Your task to perform on an android device: What's a good restaurant in Sacramento? Image 0: 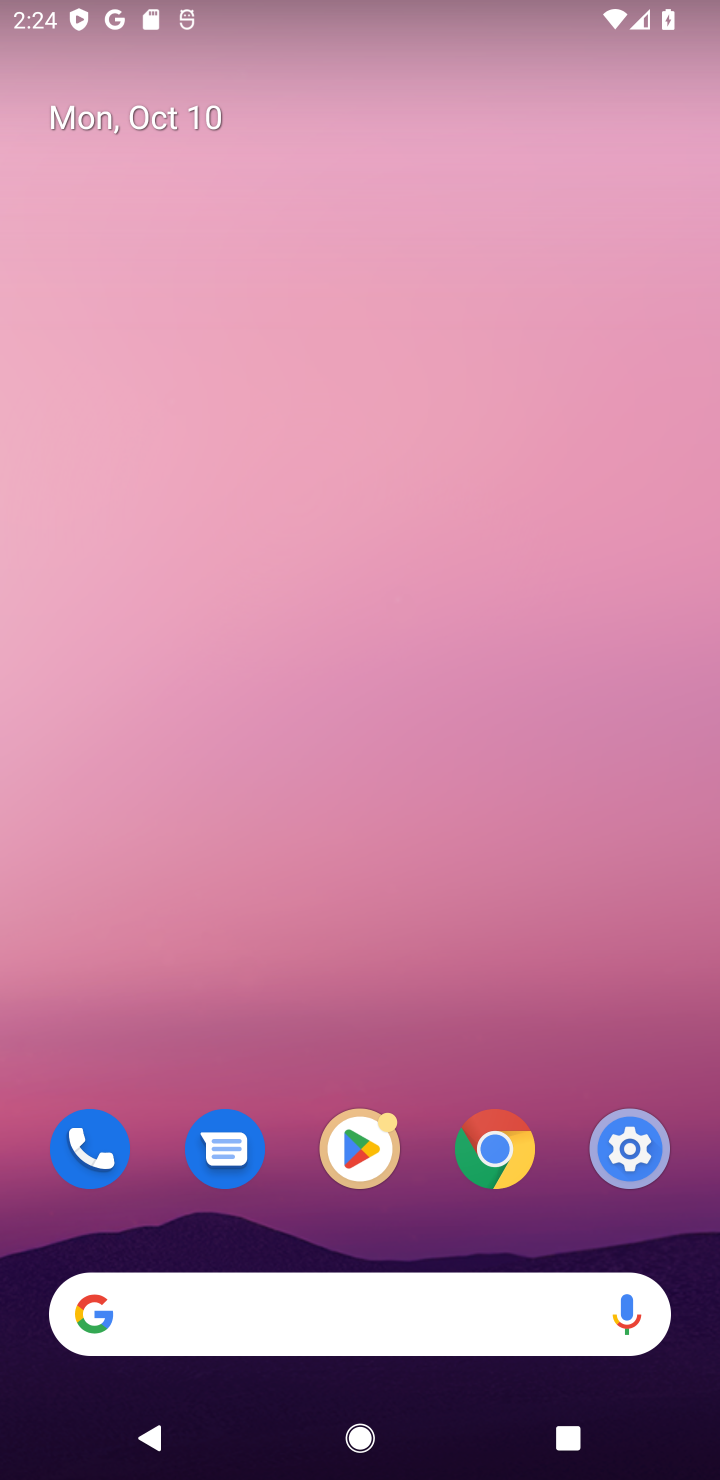
Step 0: click (587, 818)
Your task to perform on an android device: What's a good restaurant in Sacramento? Image 1: 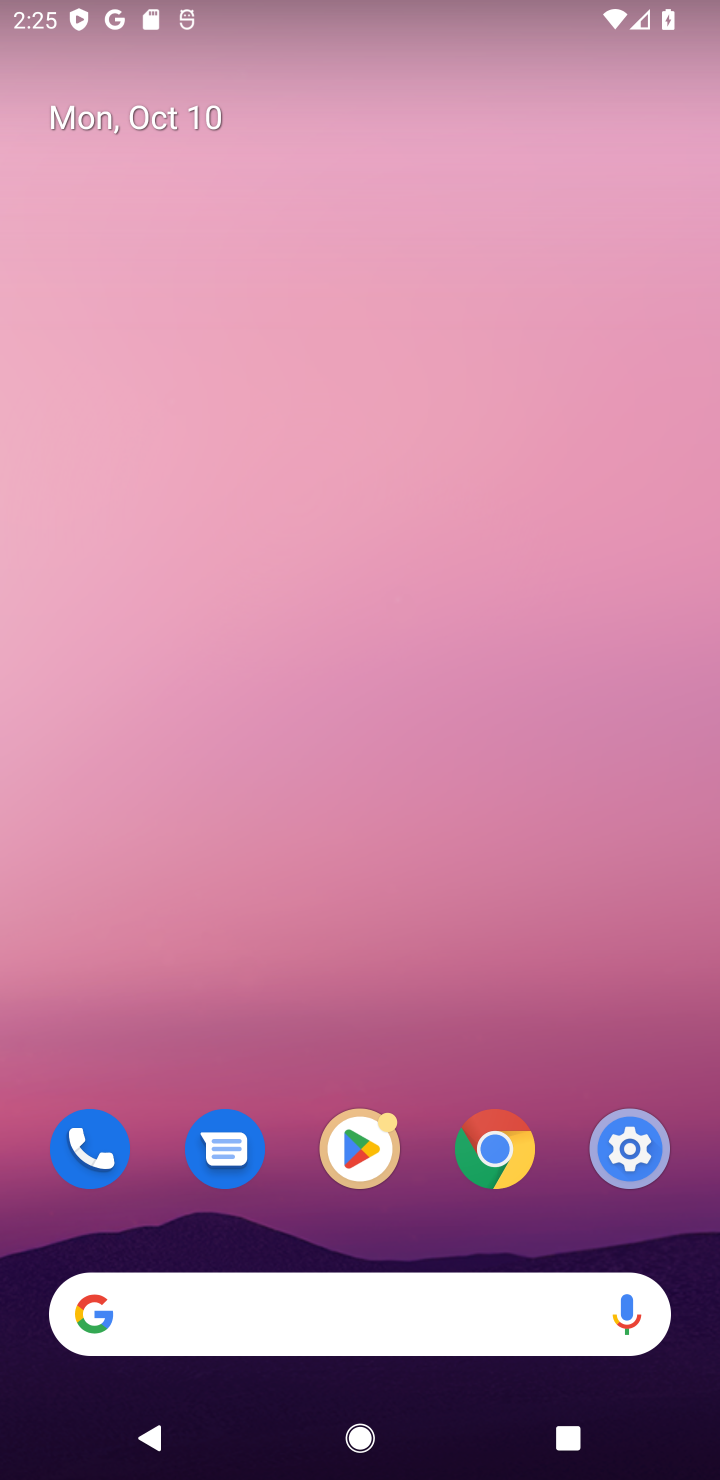
Step 1: click (211, 1311)
Your task to perform on an android device: What's a good restaurant in Sacramento? Image 2: 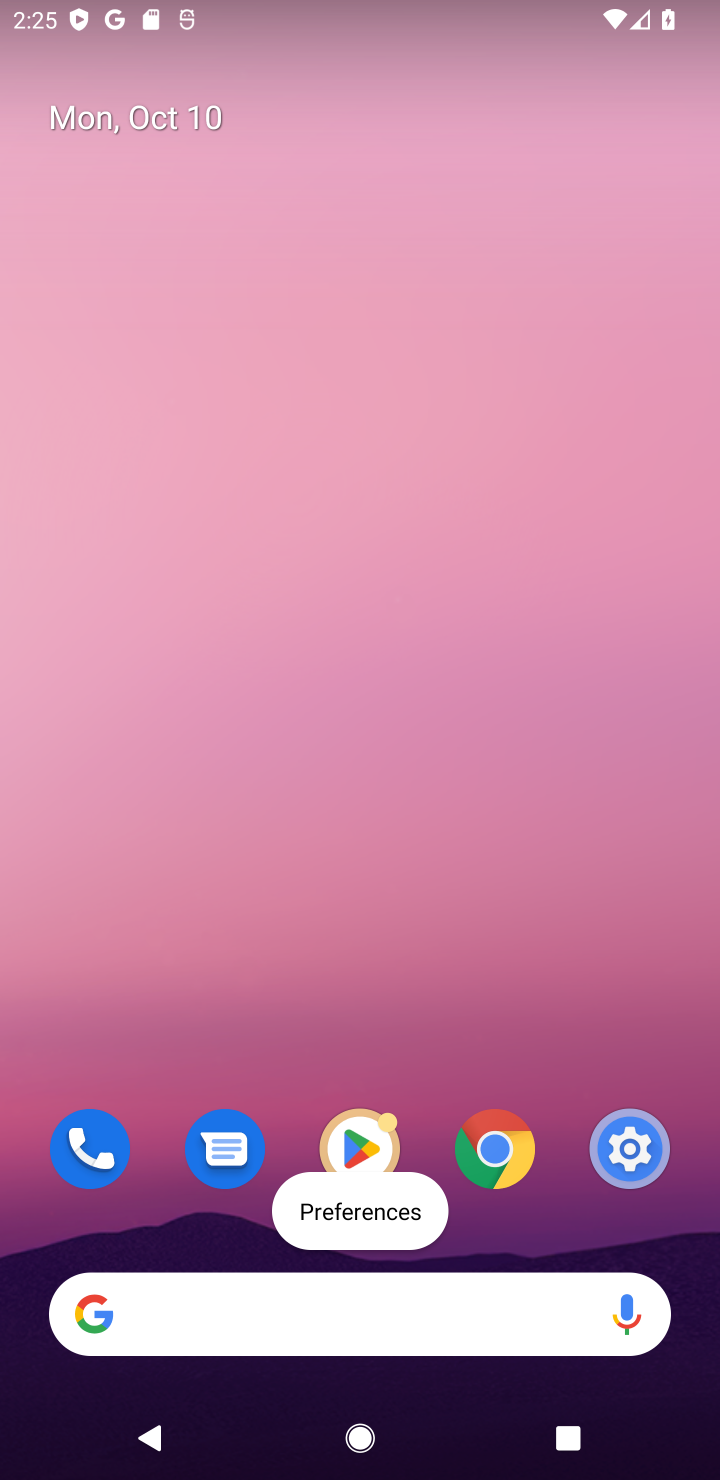
Step 2: click (324, 1321)
Your task to perform on an android device: What's a good restaurant in Sacramento? Image 3: 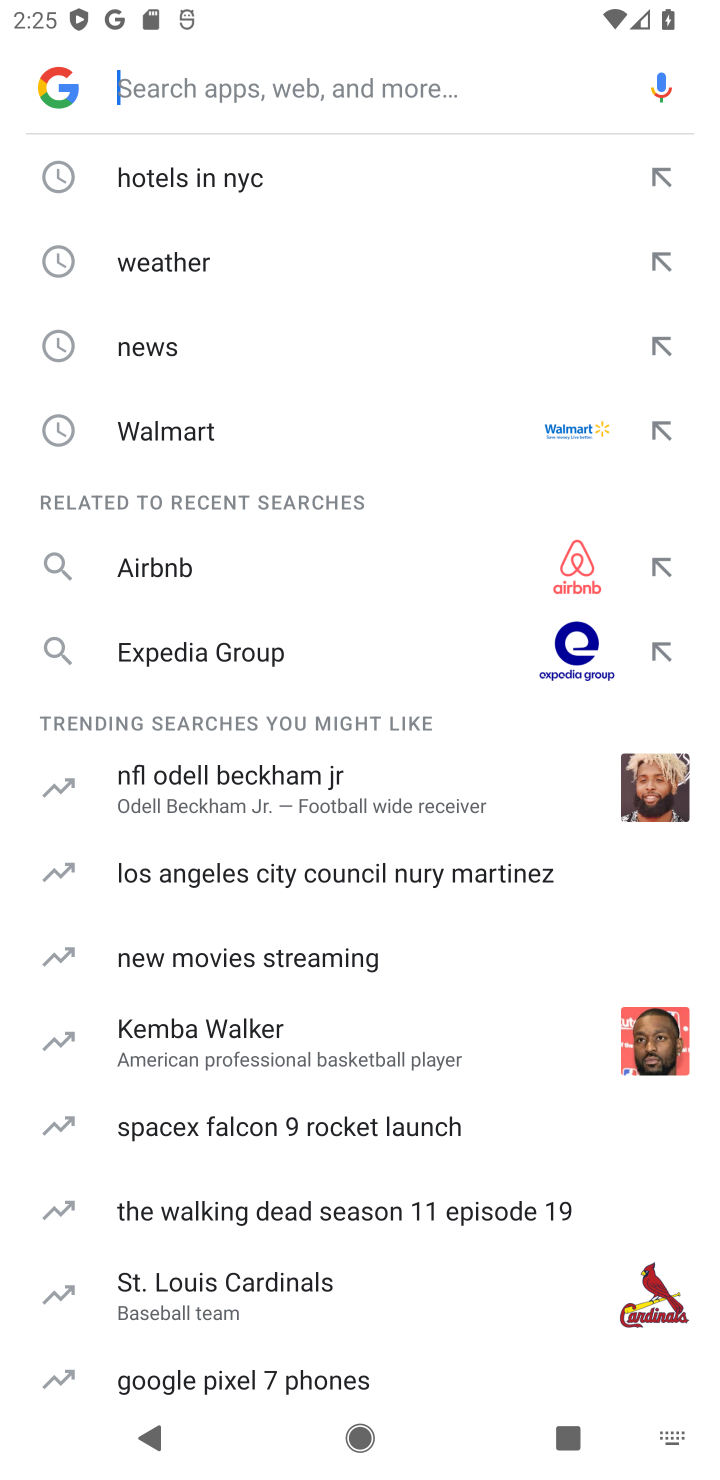
Step 3: click (324, 1321)
Your task to perform on an android device: What's a good restaurant in Sacramento? Image 4: 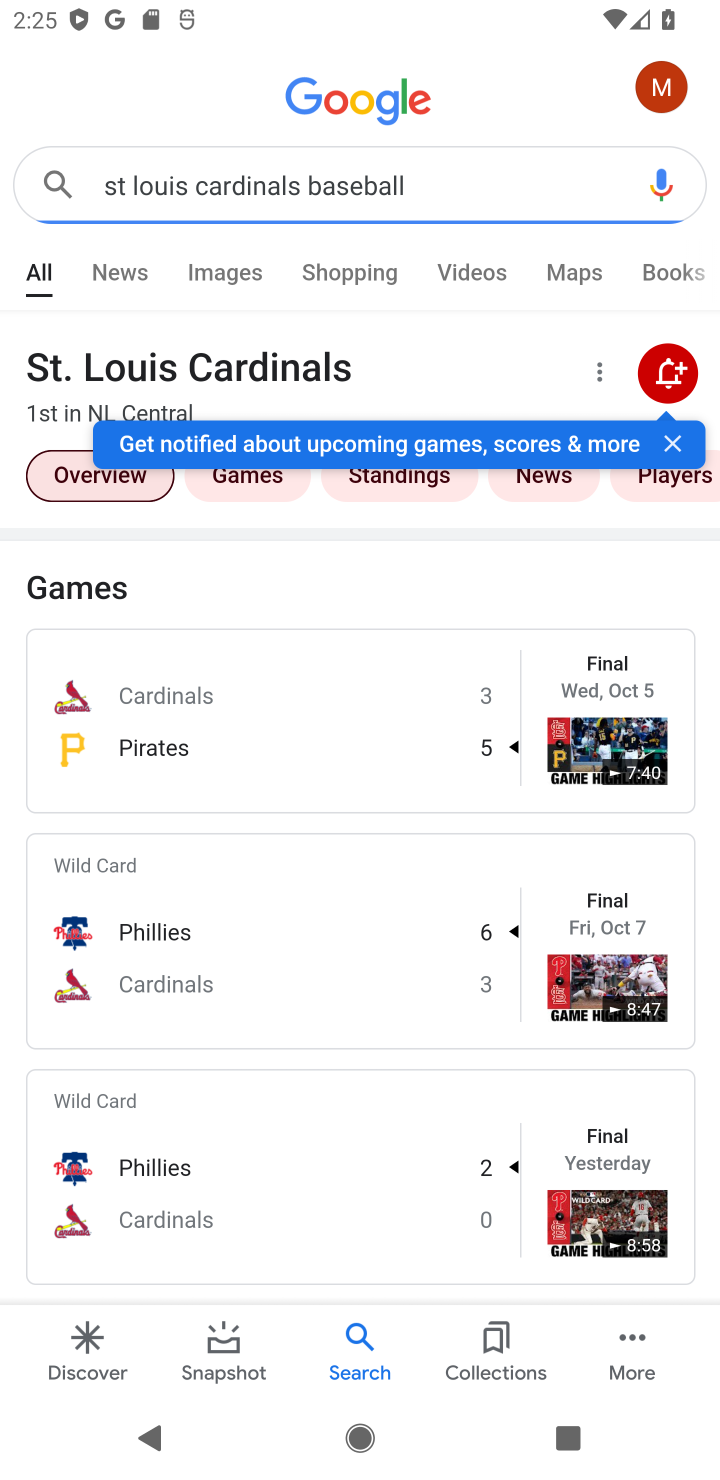
Step 4: click (461, 179)
Your task to perform on an android device: What's a good restaurant in Sacramento? Image 5: 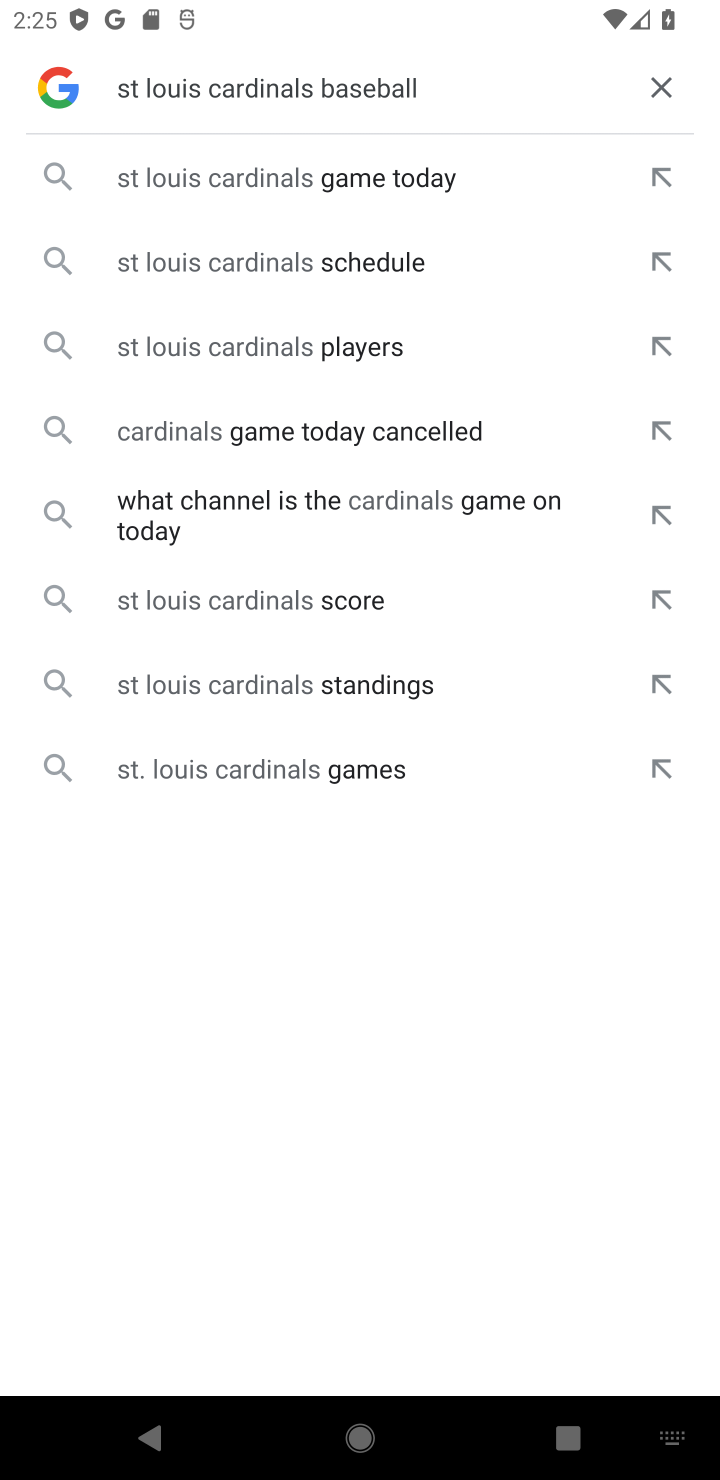
Step 5: click (660, 88)
Your task to perform on an android device: What's a good restaurant in Sacramento? Image 6: 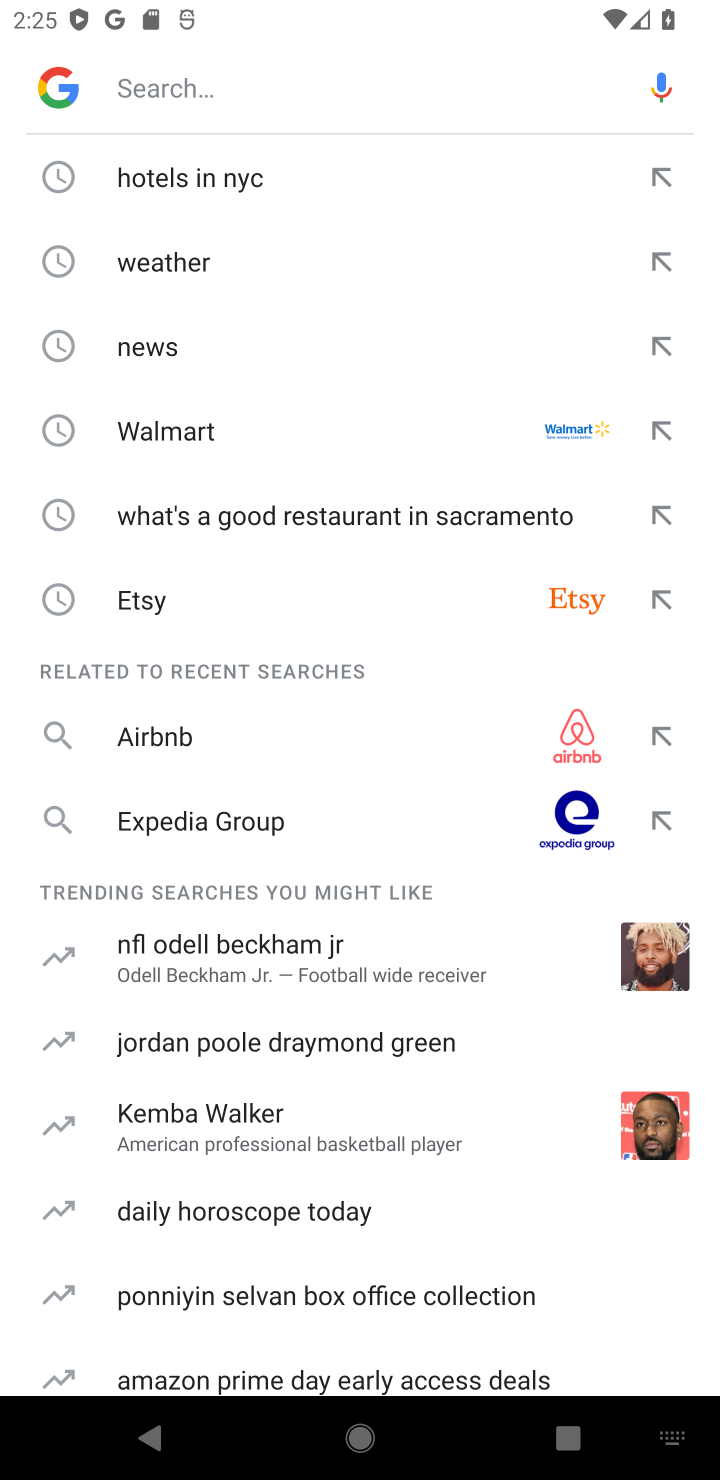
Step 6: type "restaurant in Sacramento"
Your task to perform on an android device: What's a good restaurant in Sacramento? Image 7: 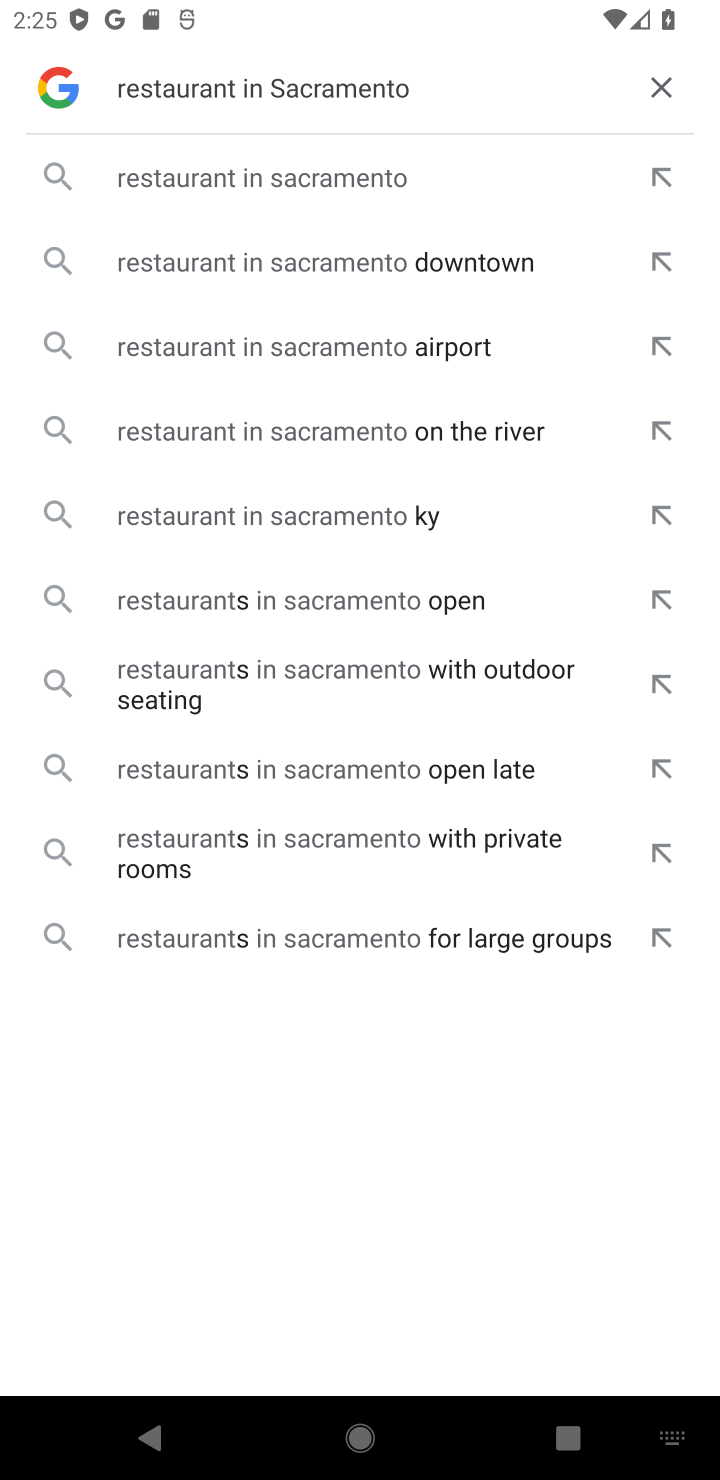
Step 7: click (332, 192)
Your task to perform on an android device: What's a good restaurant in Sacramento? Image 8: 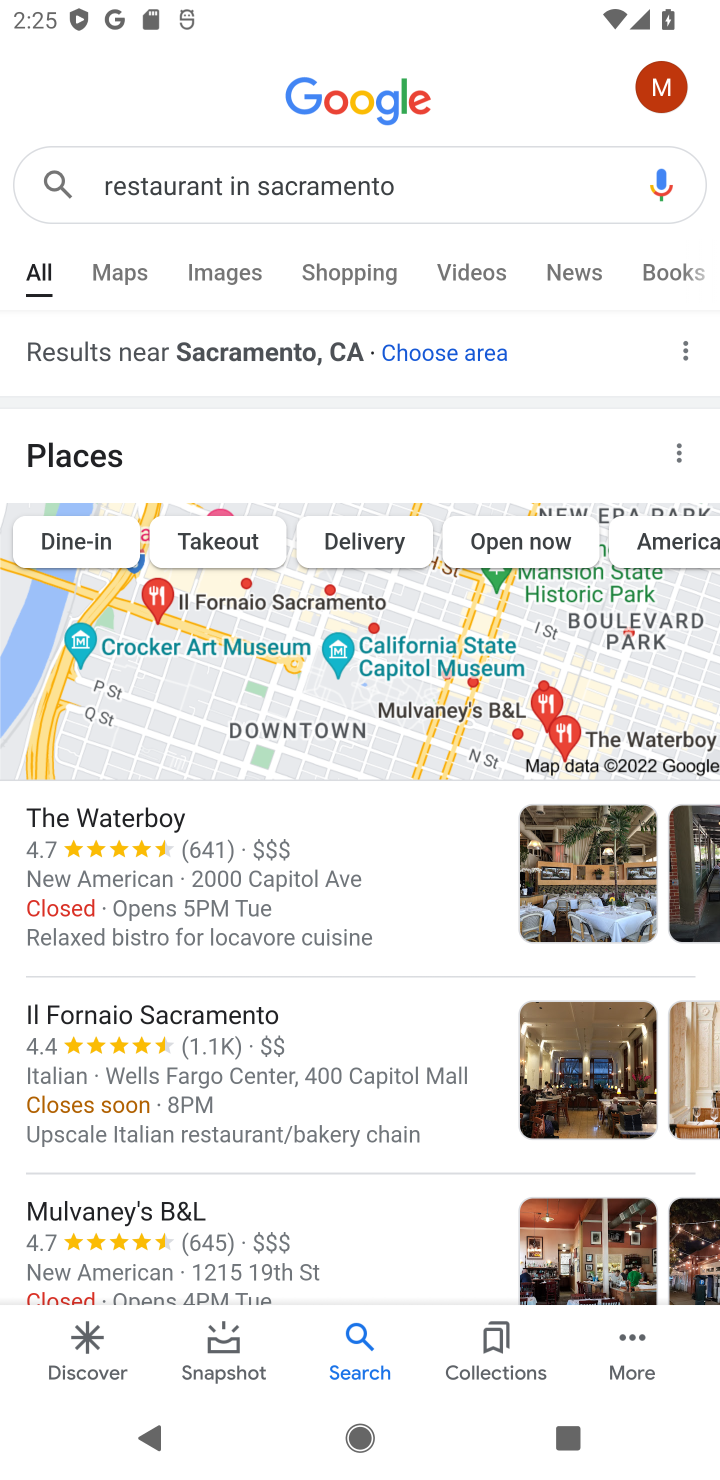
Step 8: task complete